Your task to perform on an android device: change alarm snooze length Image 0: 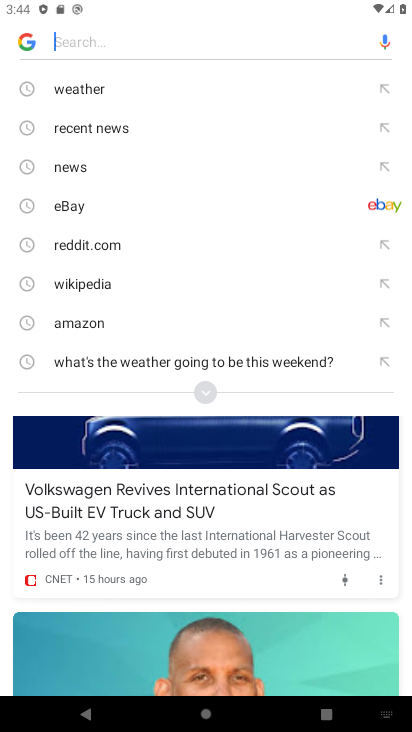
Step 0: press back button
Your task to perform on an android device: change alarm snooze length Image 1: 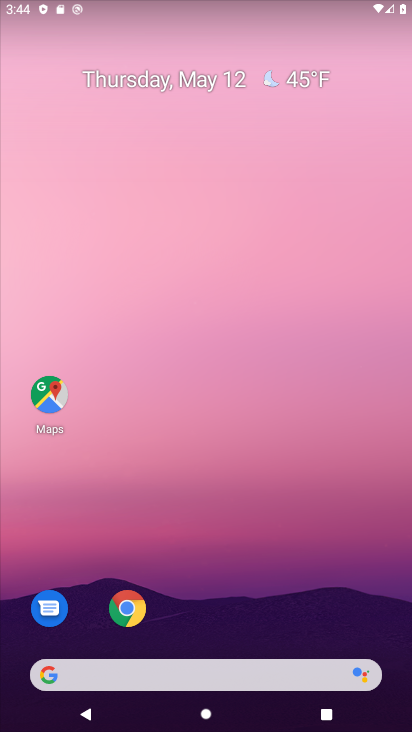
Step 1: drag from (297, 626) to (245, 37)
Your task to perform on an android device: change alarm snooze length Image 2: 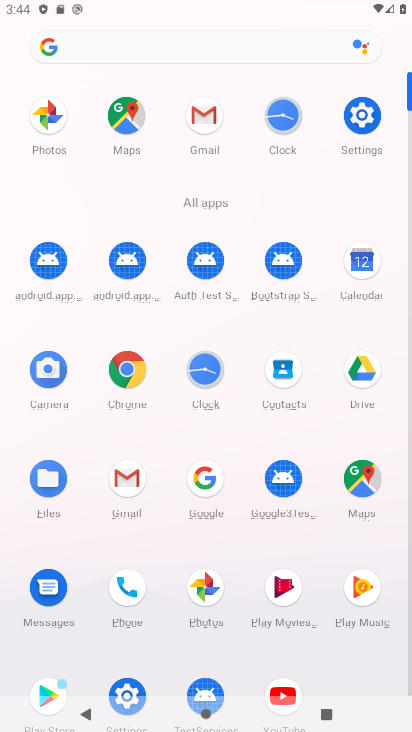
Step 2: click (381, 131)
Your task to perform on an android device: change alarm snooze length Image 3: 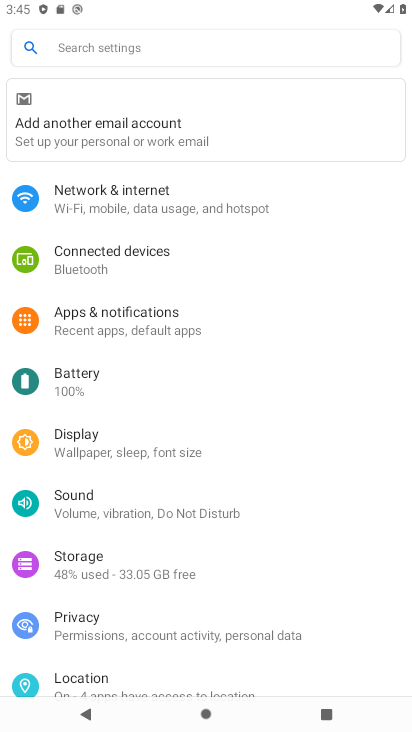
Step 3: press home button
Your task to perform on an android device: change alarm snooze length Image 4: 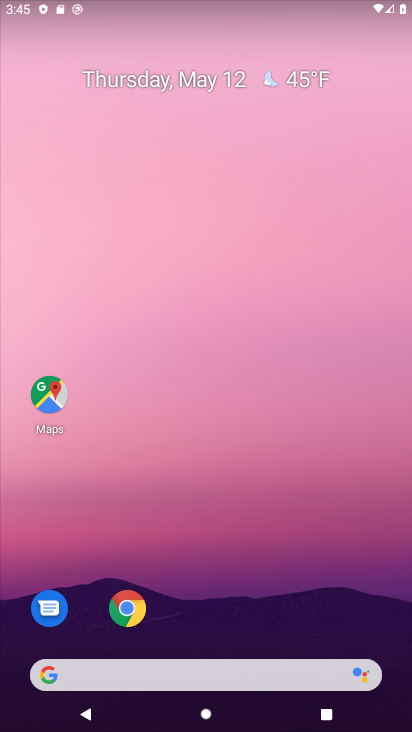
Step 4: drag from (253, 631) to (126, 191)
Your task to perform on an android device: change alarm snooze length Image 5: 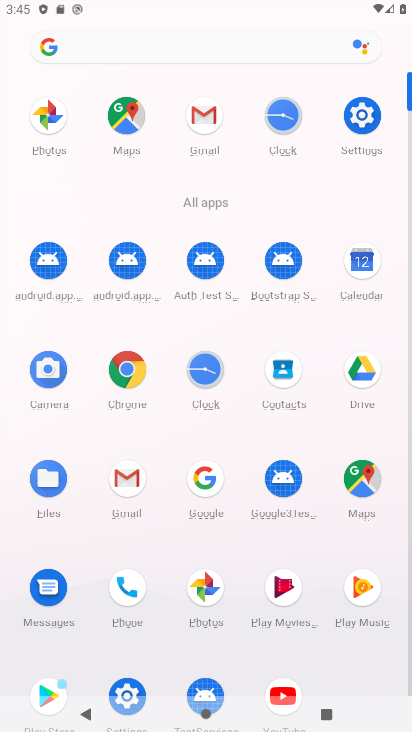
Step 5: click (292, 127)
Your task to perform on an android device: change alarm snooze length Image 6: 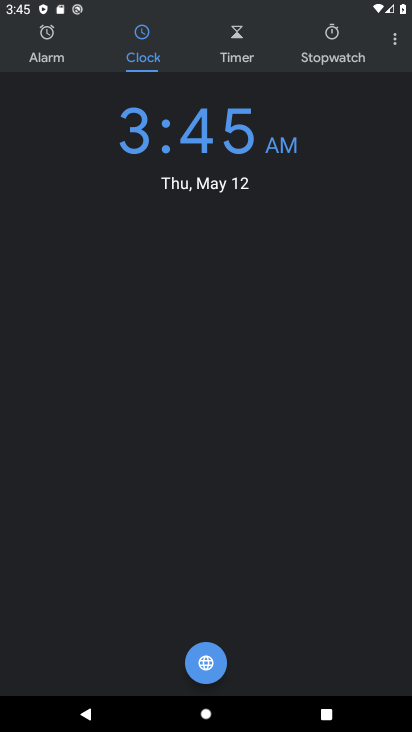
Step 6: click (387, 40)
Your task to perform on an android device: change alarm snooze length Image 7: 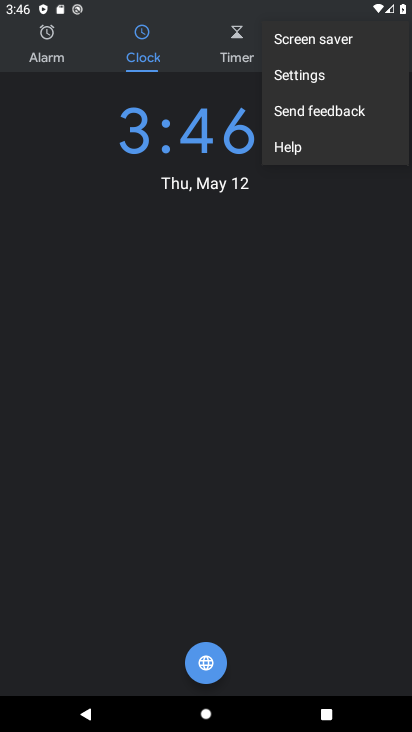
Step 7: click (387, 63)
Your task to perform on an android device: change alarm snooze length Image 8: 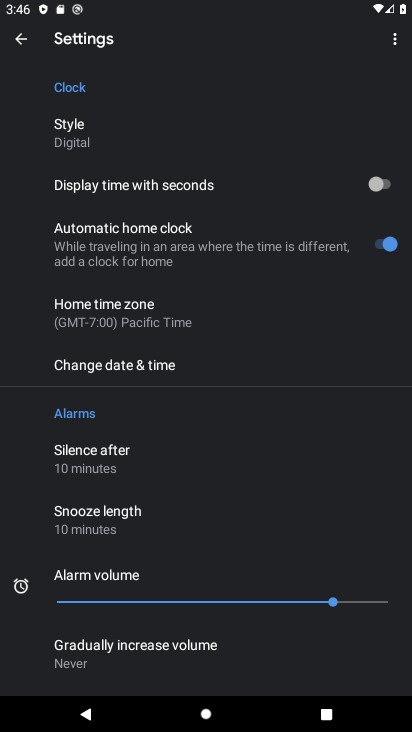
Step 8: click (166, 495)
Your task to perform on an android device: change alarm snooze length Image 9: 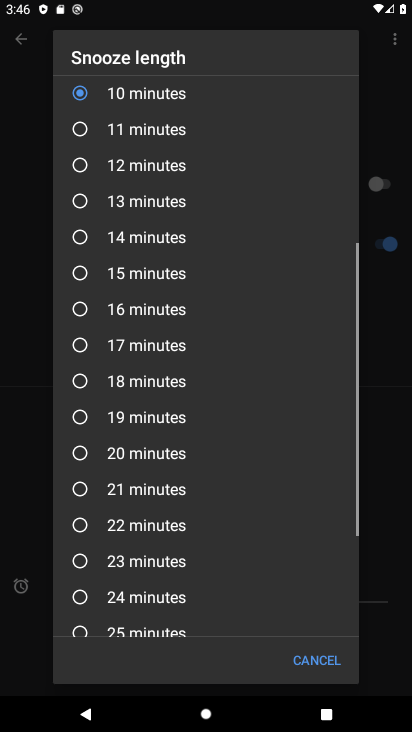
Step 9: click (161, 234)
Your task to perform on an android device: change alarm snooze length Image 10: 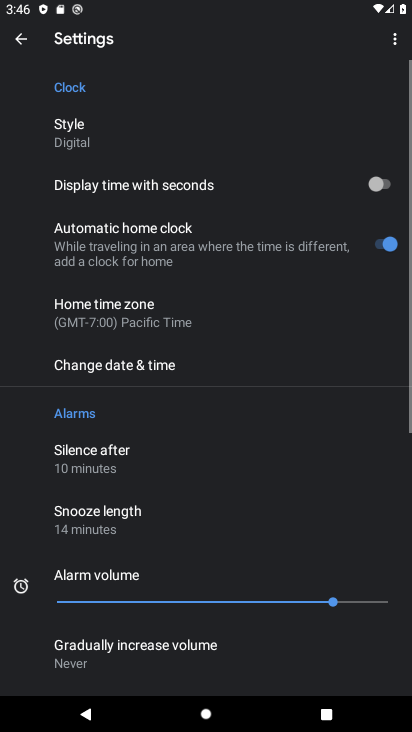
Step 10: task complete